Your task to perform on an android device: toggle javascript in the chrome app Image 0: 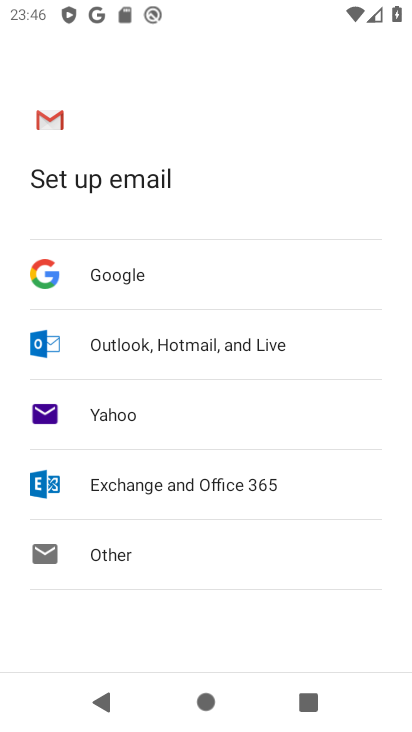
Step 0: press home button
Your task to perform on an android device: toggle javascript in the chrome app Image 1: 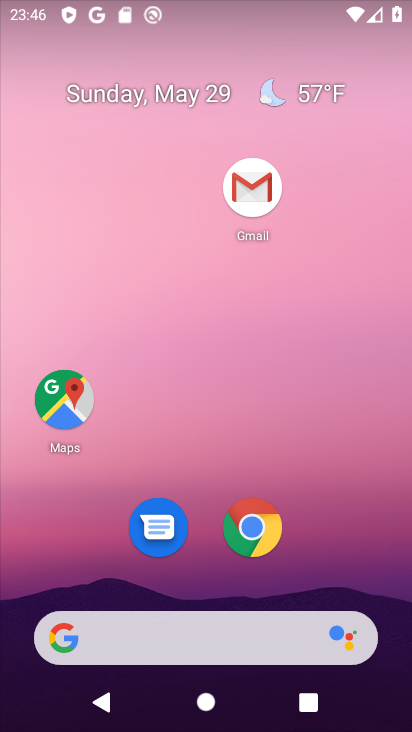
Step 1: click (251, 527)
Your task to perform on an android device: toggle javascript in the chrome app Image 2: 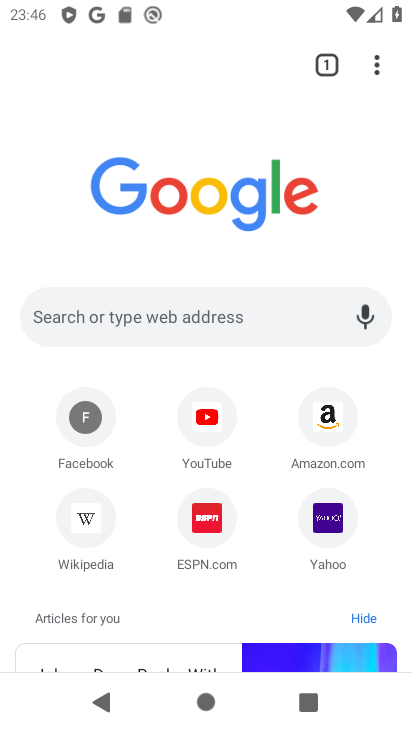
Step 2: click (378, 65)
Your task to perform on an android device: toggle javascript in the chrome app Image 3: 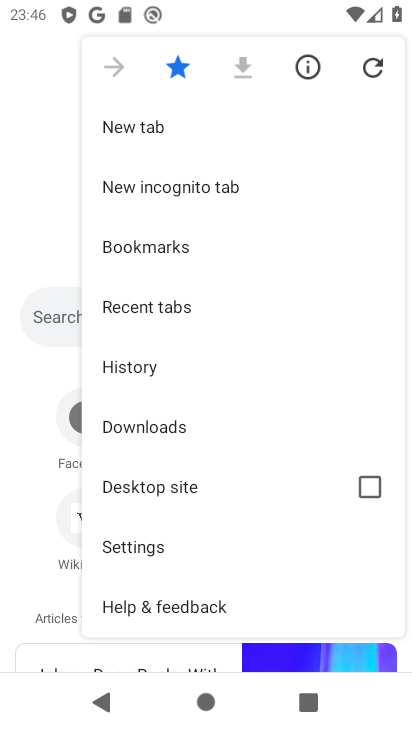
Step 3: click (145, 546)
Your task to perform on an android device: toggle javascript in the chrome app Image 4: 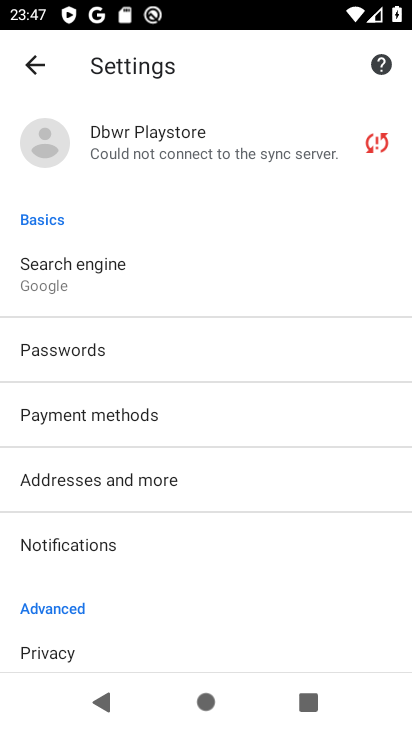
Step 4: drag from (120, 581) to (125, 424)
Your task to perform on an android device: toggle javascript in the chrome app Image 5: 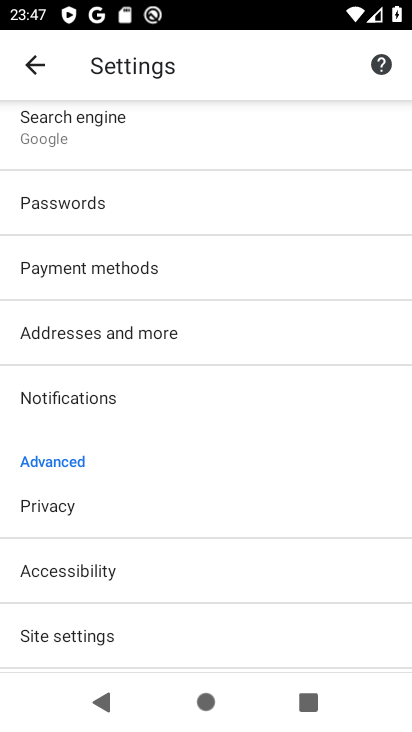
Step 5: click (99, 632)
Your task to perform on an android device: toggle javascript in the chrome app Image 6: 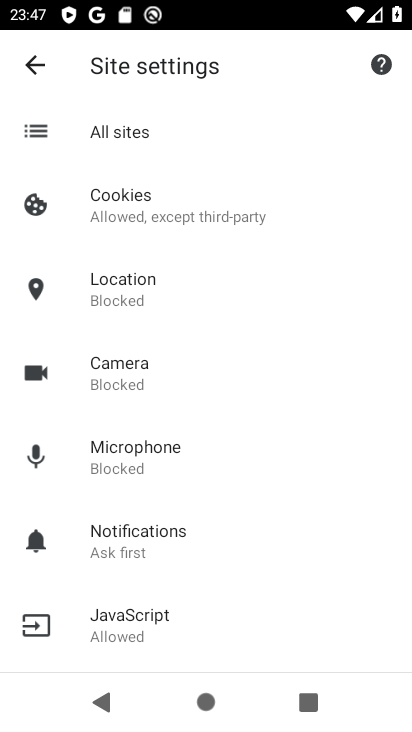
Step 6: click (151, 618)
Your task to perform on an android device: toggle javascript in the chrome app Image 7: 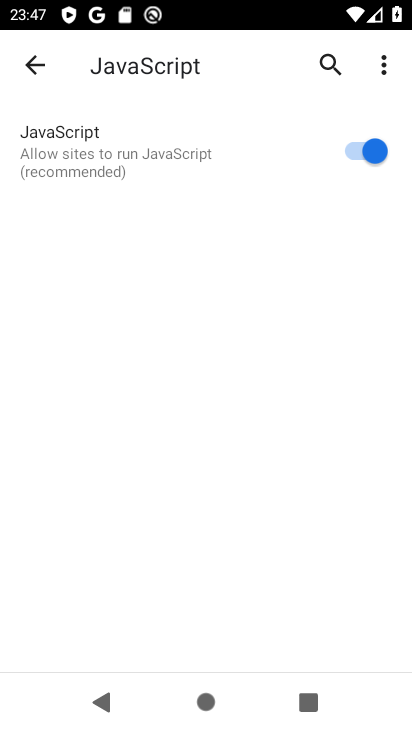
Step 7: click (360, 153)
Your task to perform on an android device: toggle javascript in the chrome app Image 8: 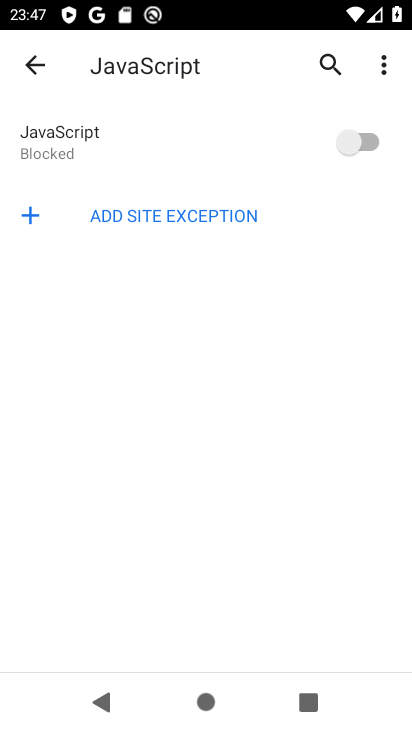
Step 8: task complete